Your task to perform on an android device: open app "Life360: Find Family & Friends" Image 0: 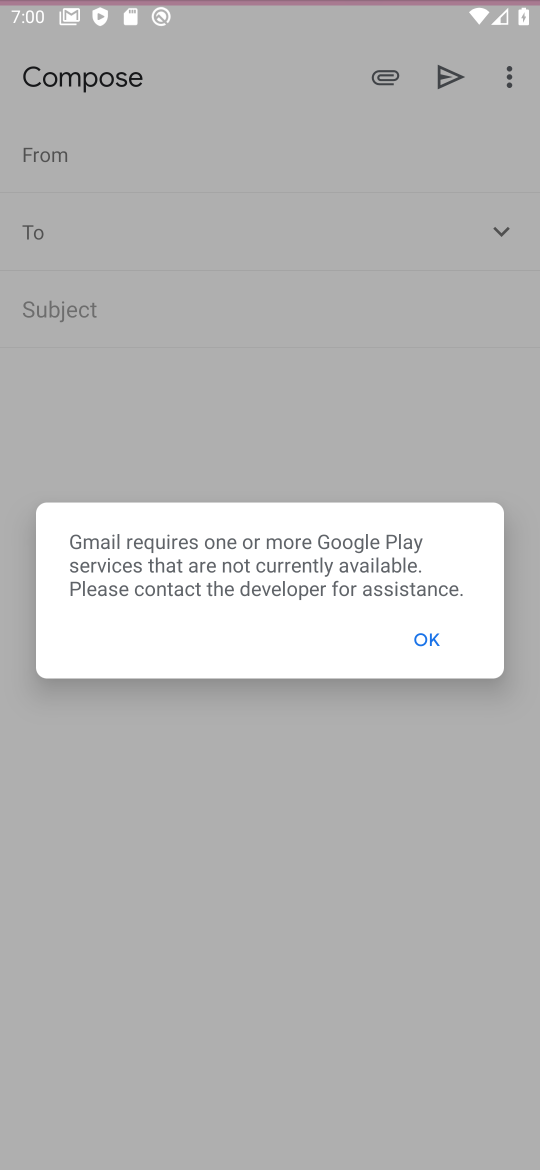
Step 0: press home button
Your task to perform on an android device: open app "Life360: Find Family & Friends" Image 1: 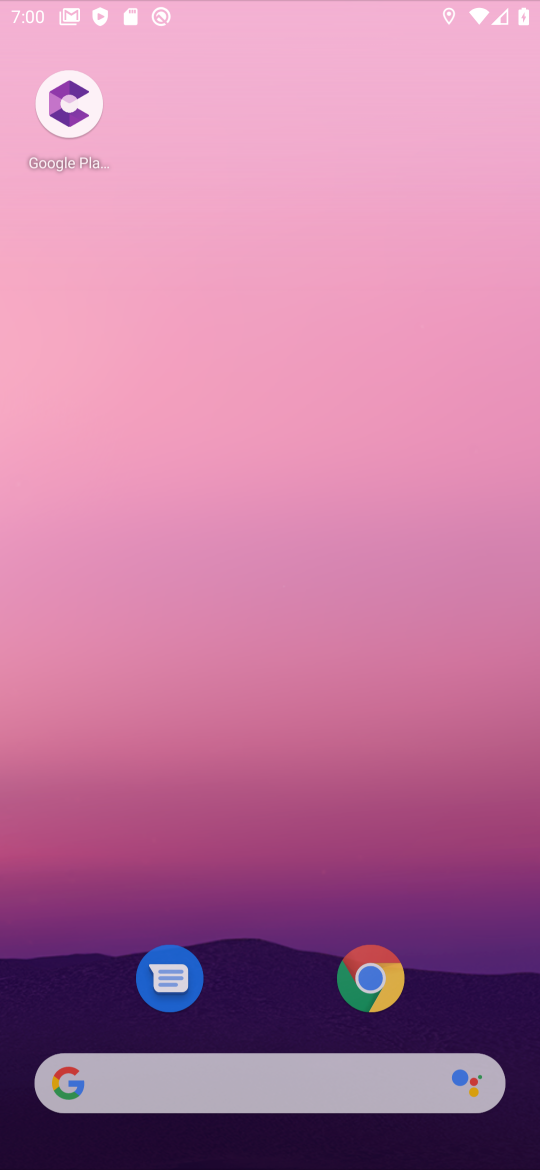
Step 1: click (158, 92)
Your task to perform on an android device: open app "Life360: Find Family & Friends" Image 2: 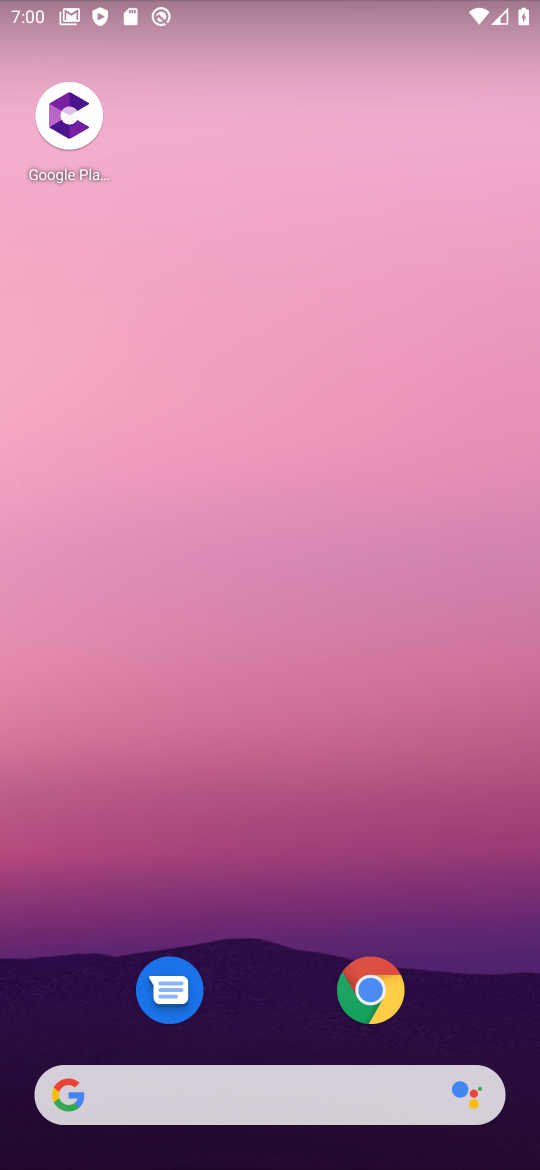
Step 2: drag from (362, 1107) to (401, 180)
Your task to perform on an android device: open app "Life360: Find Family & Friends" Image 3: 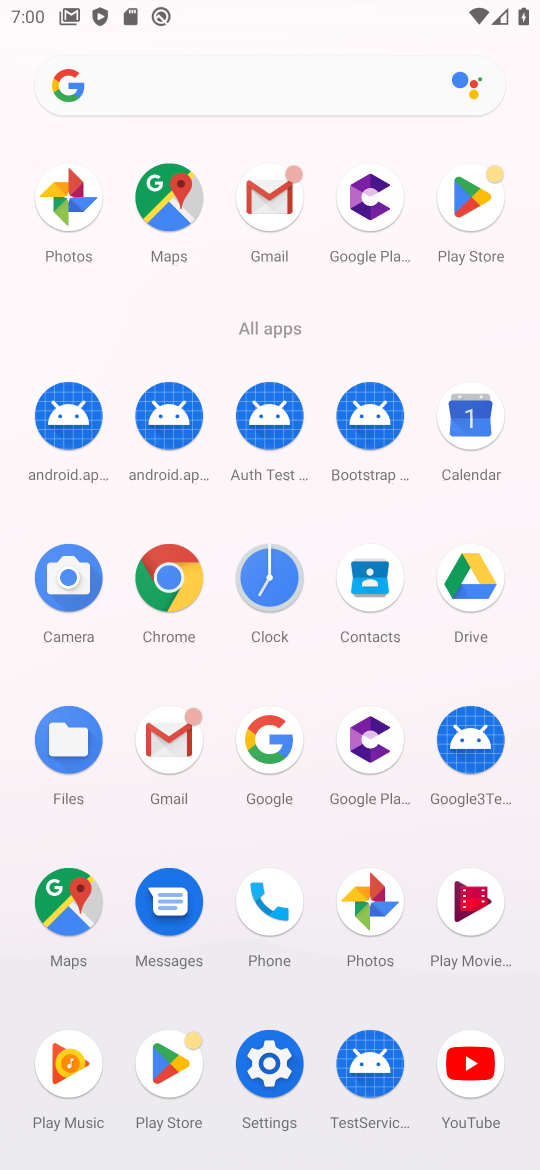
Step 3: click (280, 1081)
Your task to perform on an android device: open app "Life360: Find Family & Friends" Image 4: 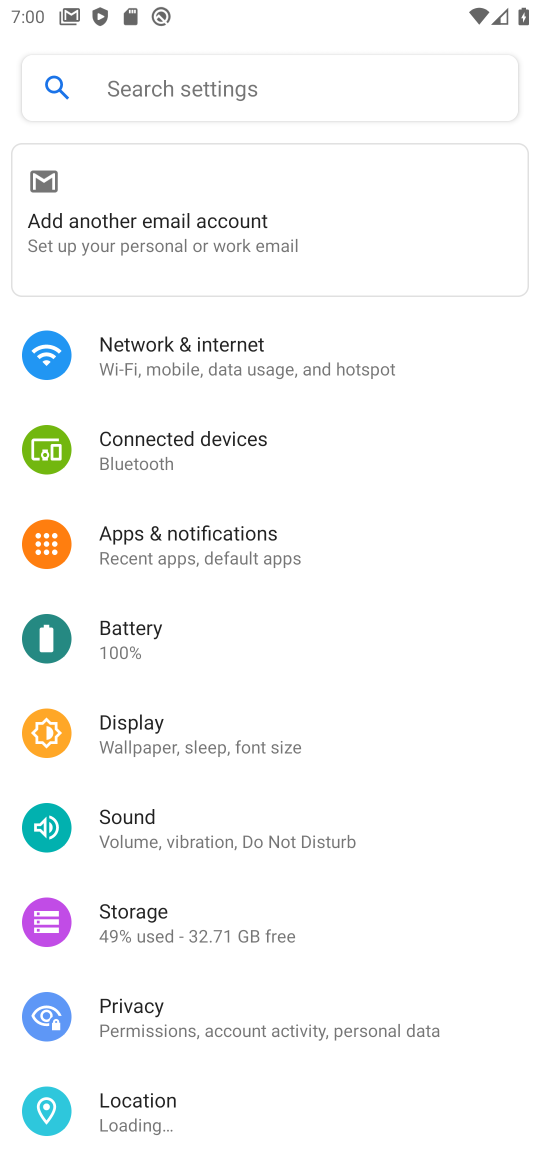
Step 4: click (213, 105)
Your task to perform on an android device: open app "Life360: Find Family & Friends" Image 5: 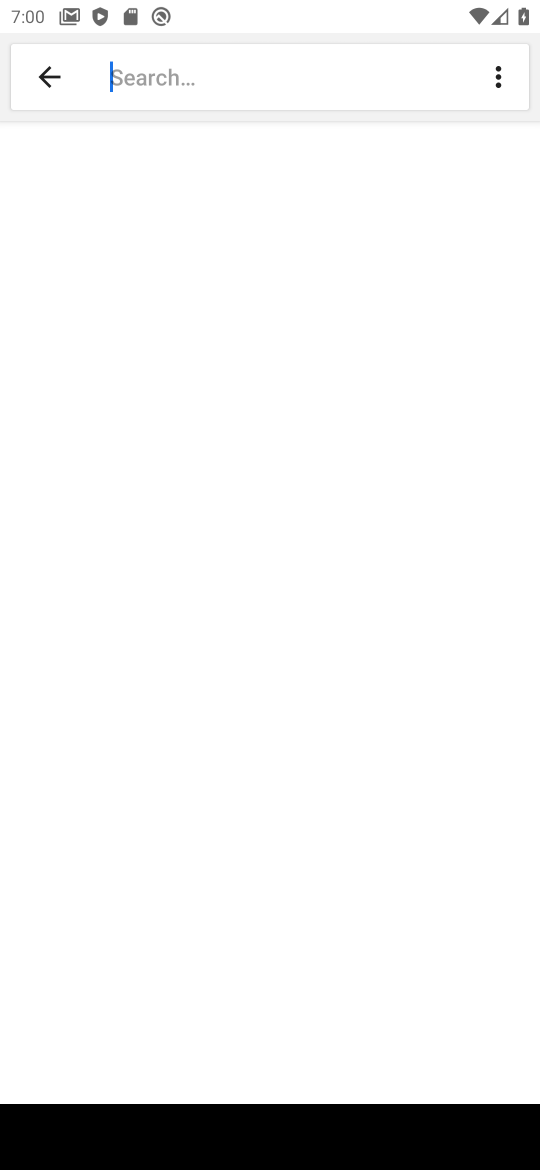
Step 5: drag from (477, 1149) to (473, 1023)
Your task to perform on an android device: open app "Life360: Find Family & Friends" Image 6: 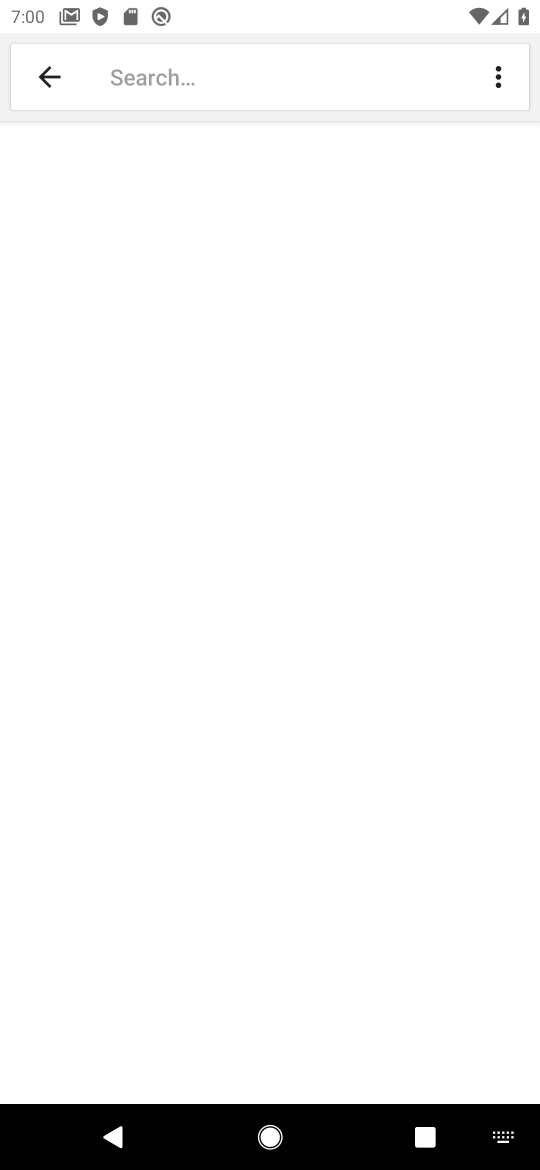
Step 6: click (504, 1144)
Your task to perform on an android device: open app "Life360: Find Family & Friends" Image 7: 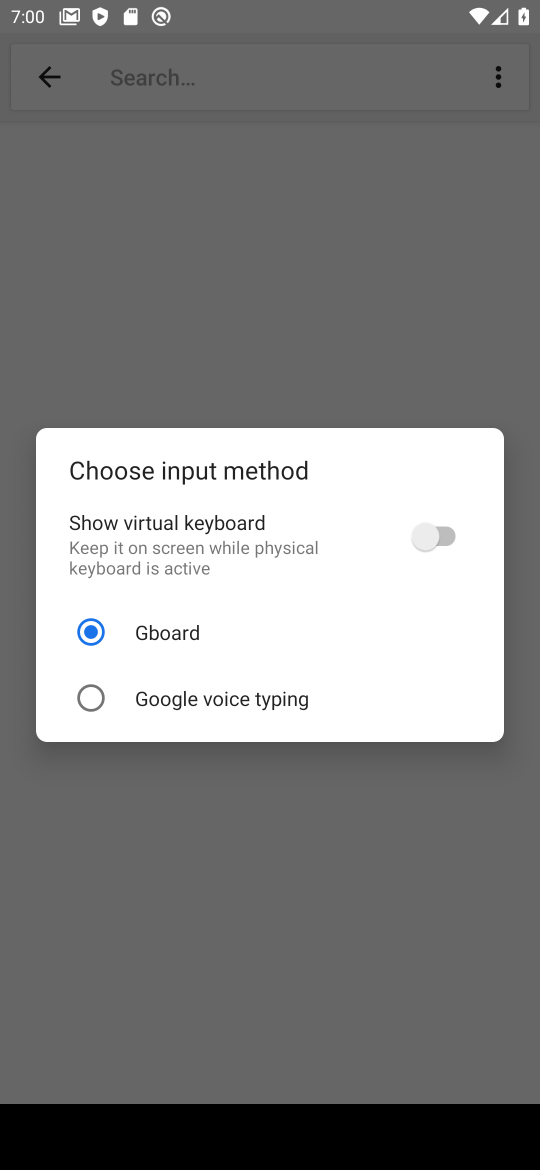
Step 7: click (439, 555)
Your task to perform on an android device: open app "Life360: Find Family & Friends" Image 8: 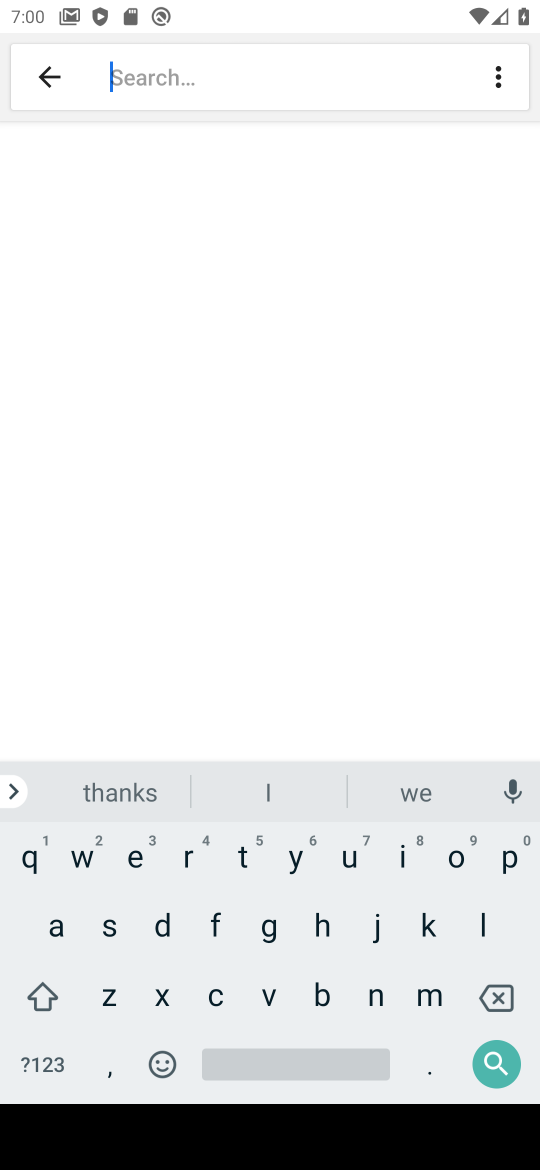
Step 8: press home button
Your task to perform on an android device: open app "Life360: Find Family & Friends" Image 9: 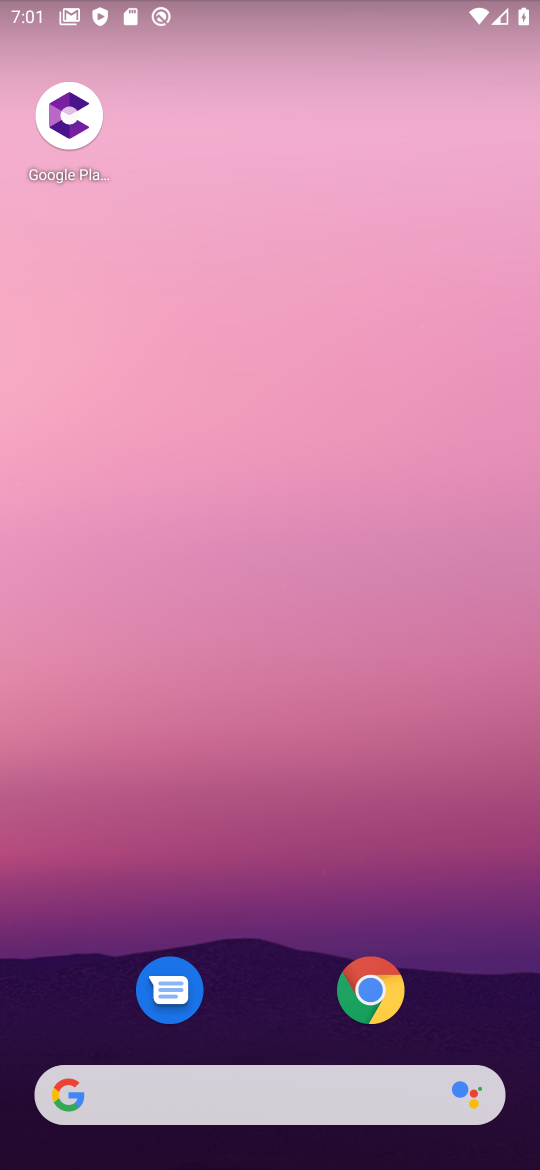
Step 9: drag from (339, 1109) to (270, 342)
Your task to perform on an android device: open app "Life360: Find Family & Friends" Image 10: 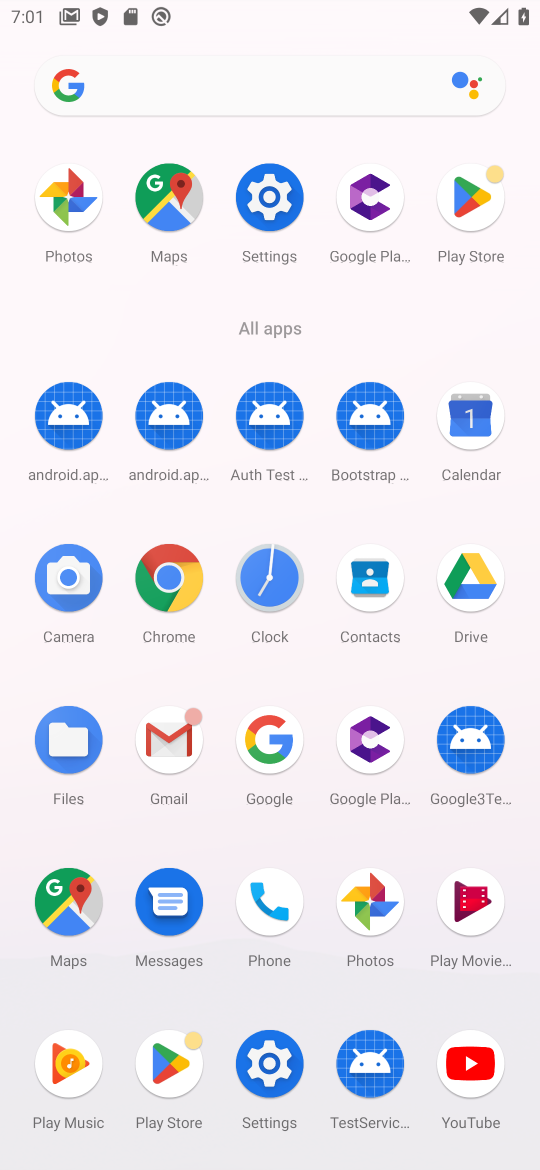
Step 10: drag from (177, 1043) to (459, 1019)
Your task to perform on an android device: open app "Life360: Find Family & Friends" Image 11: 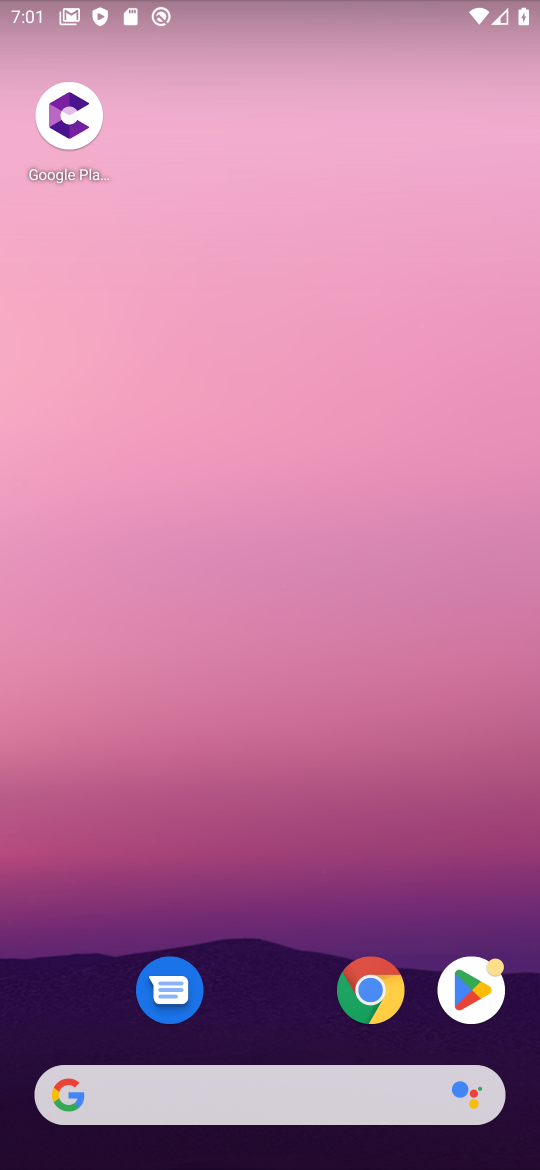
Step 11: click (490, 1006)
Your task to perform on an android device: open app "Life360: Find Family & Friends" Image 12: 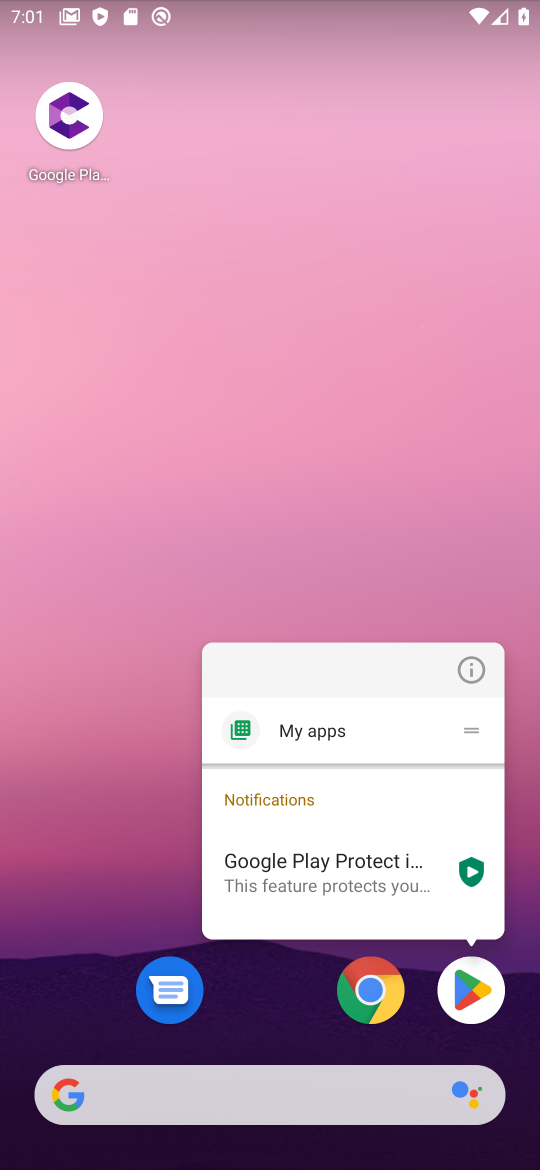
Step 12: click (483, 985)
Your task to perform on an android device: open app "Life360: Find Family & Friends" Image 13: 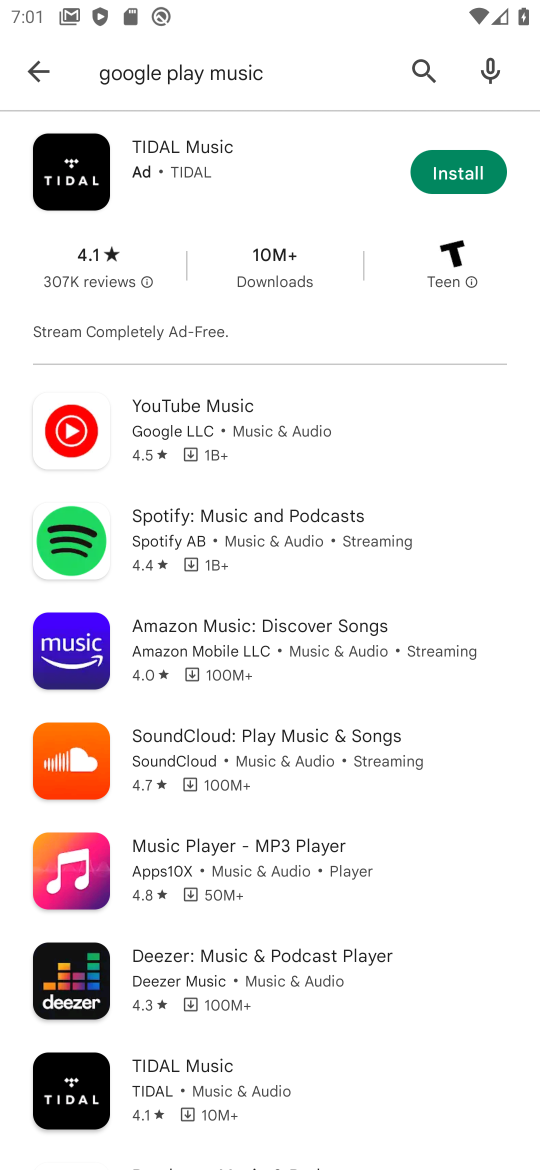
Step 13: click (418, 64)
Your task to perform on an android device: open app "Life360: Find Family & Friends" Image 14: 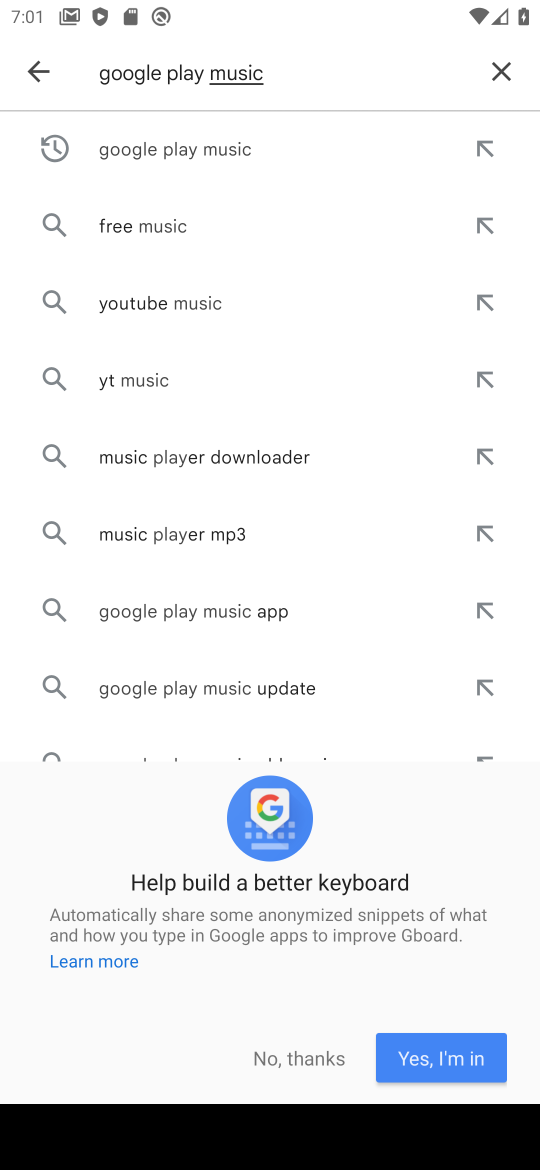
Step 14: click (506, 73)
Your task to perform on an android device: open app "Life360: Find Family & Friends" Image 15: 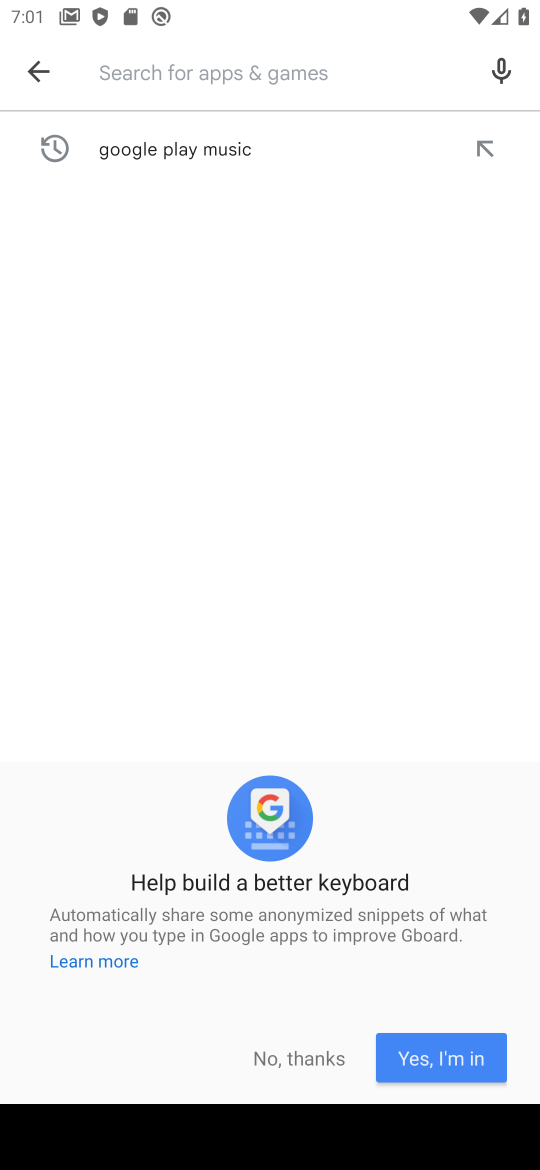
Step 15: click (282, 1057)
Your task to perform on an android device: open app "Life360: Find Family & Friends" Image 16: 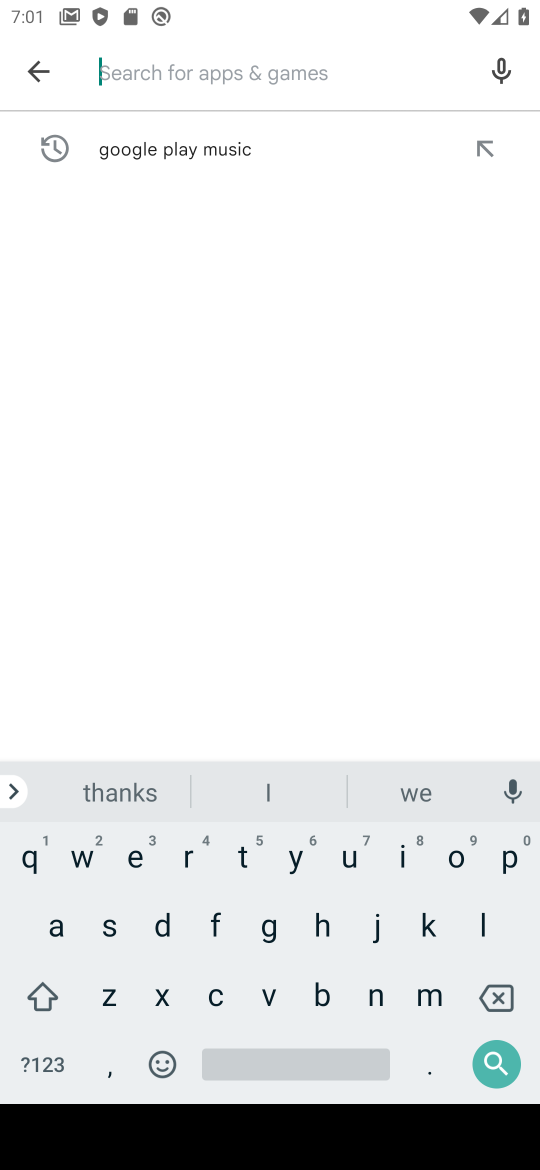
Step 16: click (482, 925)
Your task to perform on an android device: open app "Life360: Find Family & Friends" Image 17: 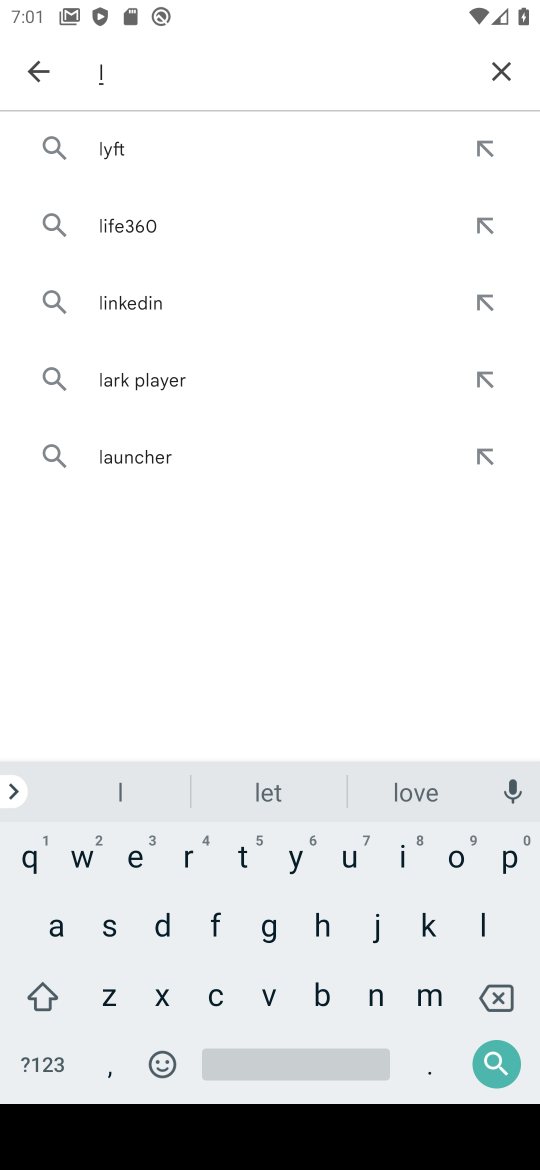
Step 17: click (400, 851)
Your task to perform on an android device: open app "Life360: Find Family & Friends" Image 18: 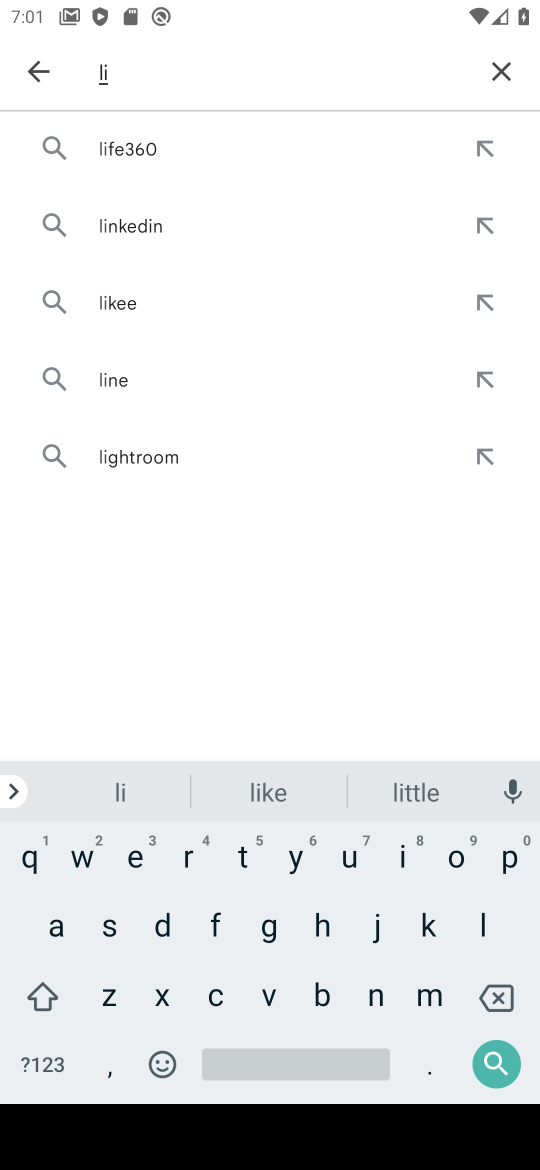
Step 18: click (205, 928)
Your task to perform on an android device: open app "Life360: Find Family & Friends" Image 19: 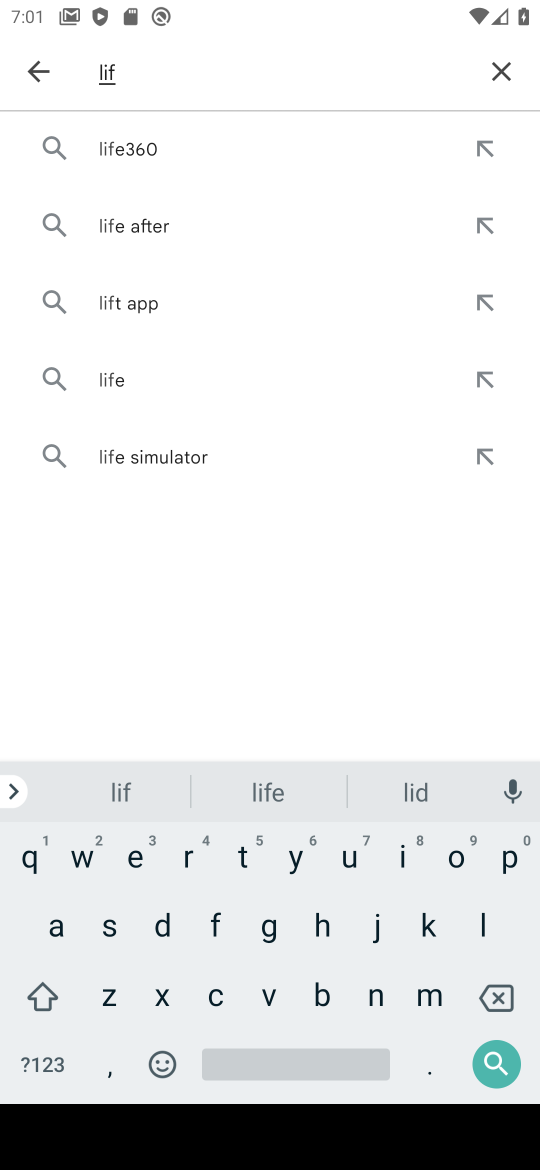
Step 19: click (148, 155)
Your task to perform on an android device: open app "Life360: Find Family & Friends" Image 20: 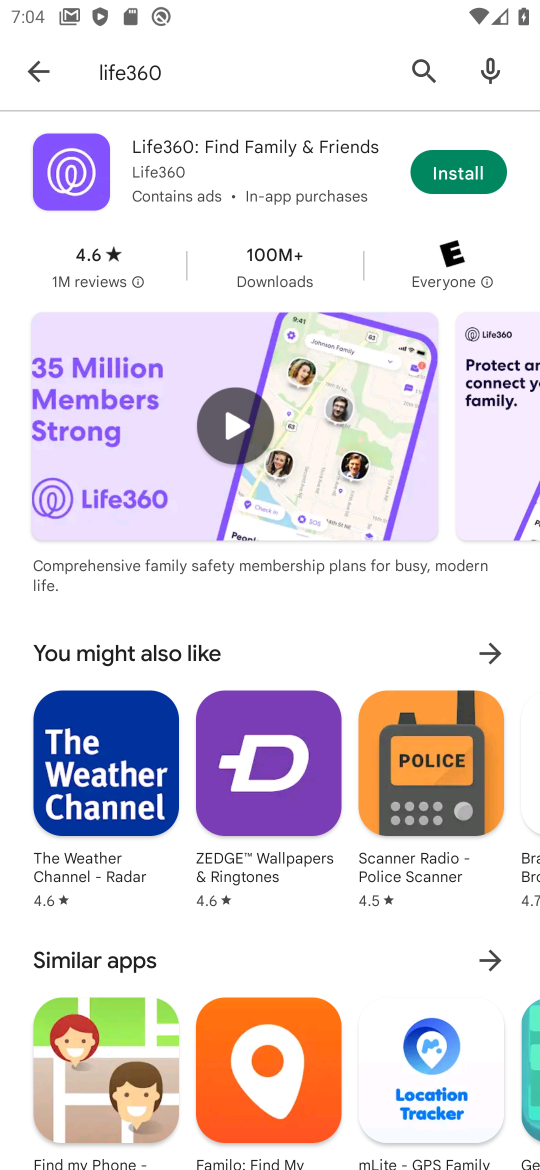
Step 20: task complete